Your task to perform on an android device: turn on the 24-hour format for clock Image 0: 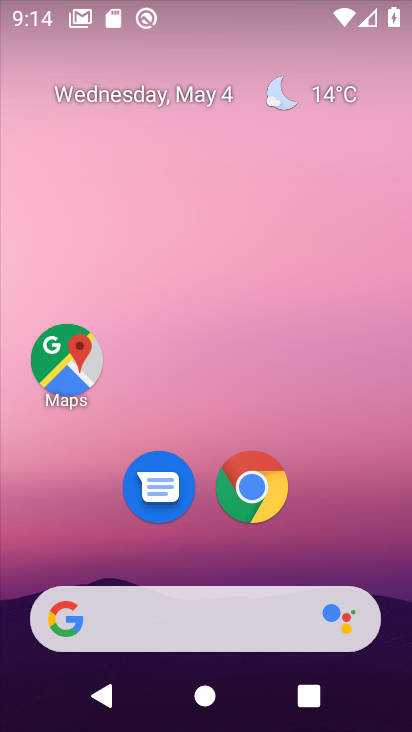
Step 0: drag from (192, 548) to (388, 142)
Your task to perform on an android device: turn on the 24-hour format for clock Image 1: 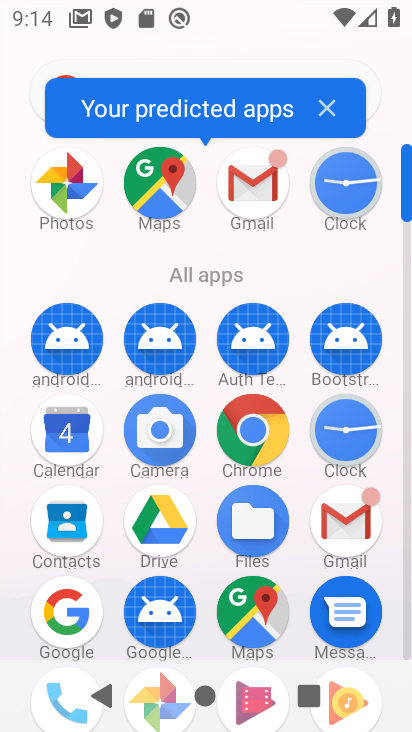
Step 1: click (355, 168)
Your task to perform on an android device: turn on the 24-hour format for clock Image 2: 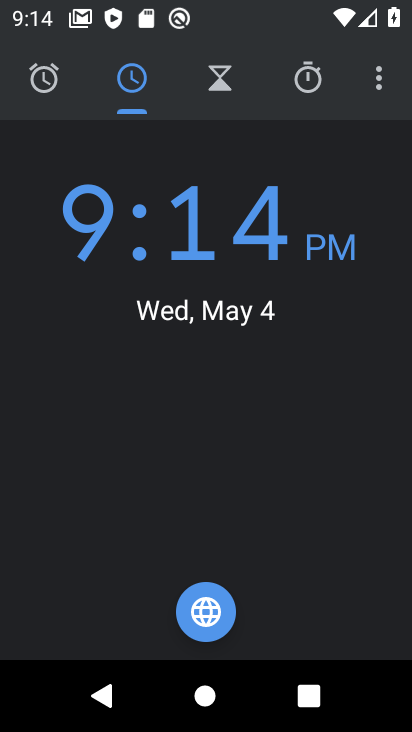
Step 2: click (377, 98)
Your task to perform on an android device: turn on the 24-hour format for clock Image 3: 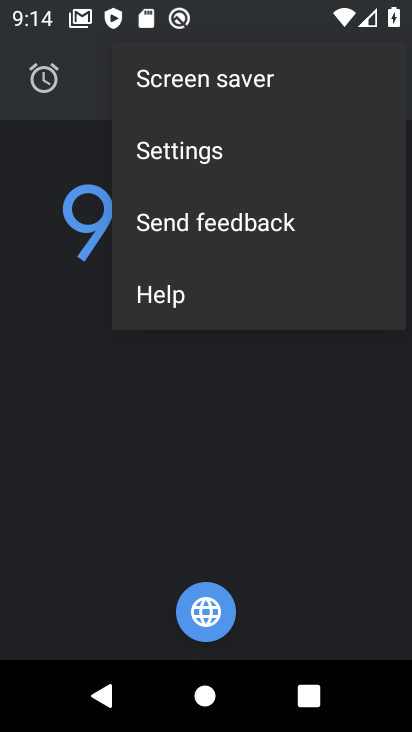
Step 3: click (281, 136)
Your task to perform on an android device: turn on the 24-hour format for clock Image 4: 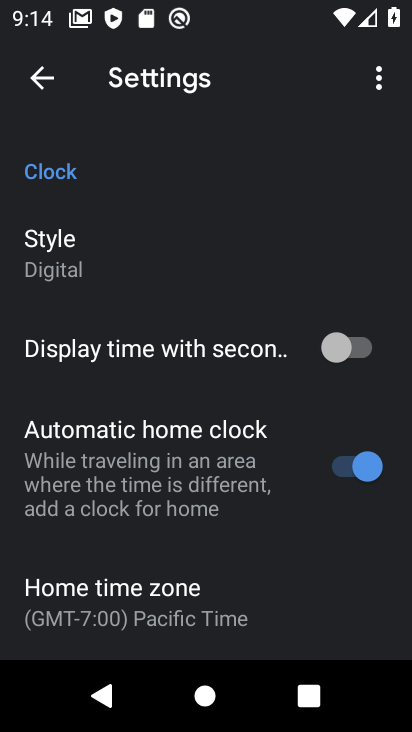
Step 4: drag from (182, 578) to (228, 175)
Your task to perform on an android device: turn on the 24-hour format for clock Image 5: 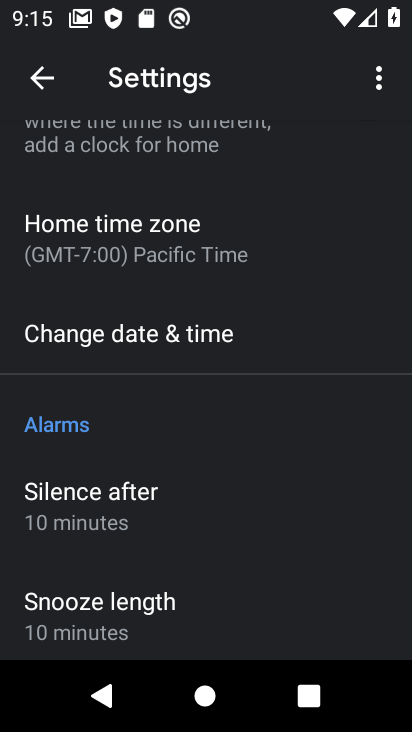
Step 5: click (78, 347)
Your task to perform on an android device: turn on the 24-hour format for clock Image 6: 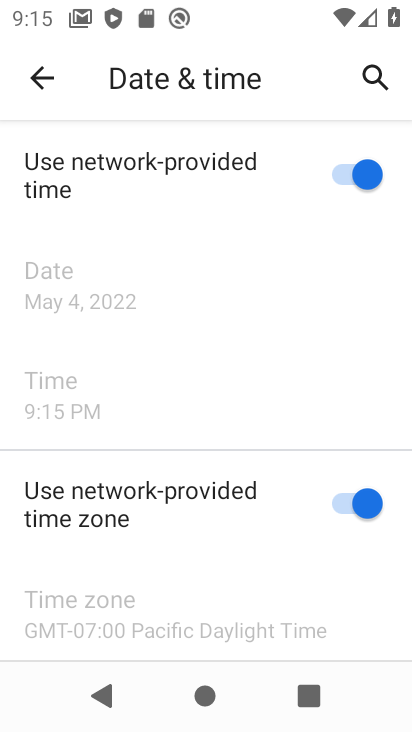
Step 6: click (331, 489)
Your task to perform on an android device: turn on the 24-hour format for clock Image 7: 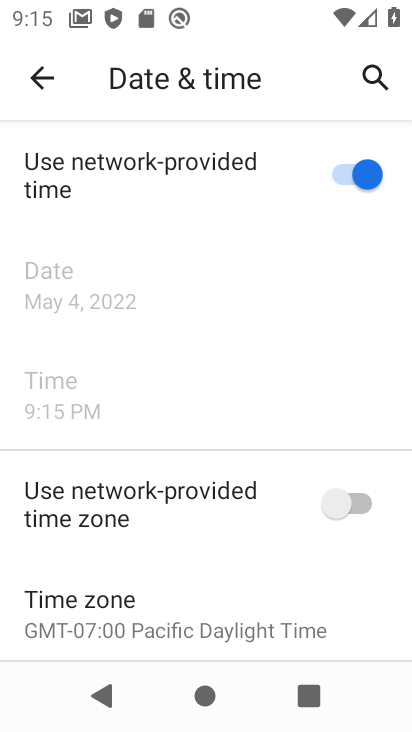
Step 7: drag from (104, 632) to (162, 389)
Your task to perform on an android device: turn on the 24-hour format for clock Image 8: 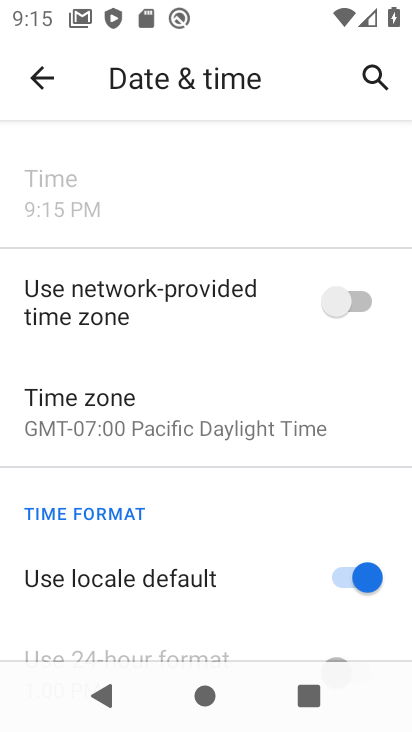
Step 8: drag from (186, 631) to (197, 438)
Your task to perform on an android device: turn on the 24-hour format for clock Image 9: 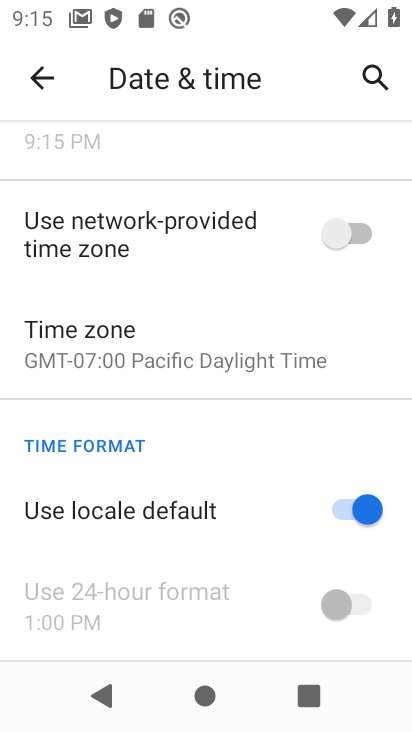
Step 9: click (353, 500)
Your task to perform on an android device: turn on the 24-hour format for clock Image 10: 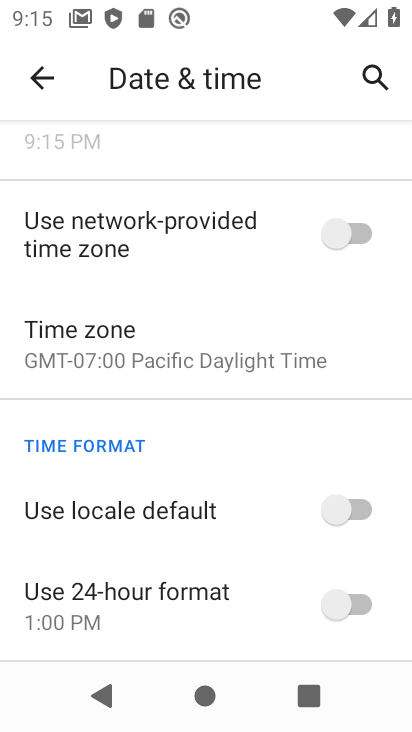
Step 10: click (364, 606)
Your task to perform on an android device: turn on the 24-hour format for clock Image 11: 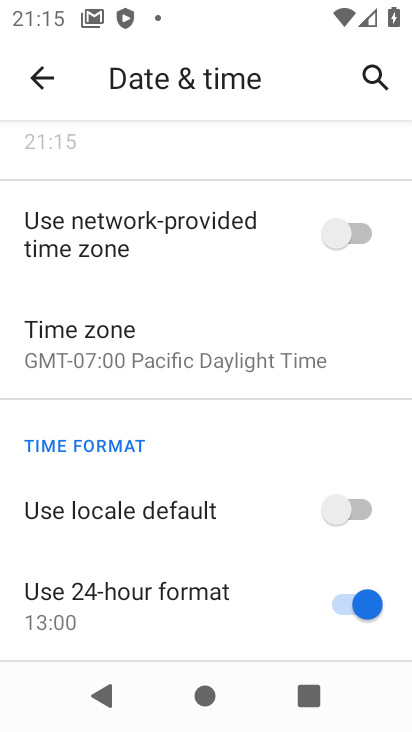
Step 11: task complete